Your task to perform on an android device: open a bookmark in the chrome app Image 0: 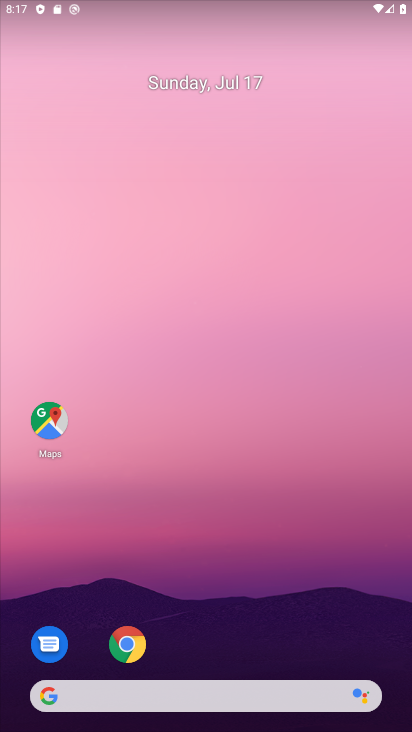
Step 0: click (127, 638)
Your task to perform on an android device: open a bookmark in the chrome app Image 1: 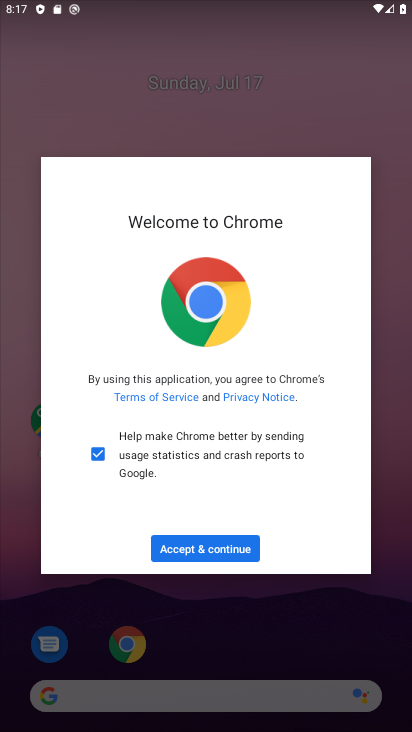
Step 1: click (202, 547)
Your task to perform on an android device: open a bookmark in the chrome app Image 2: 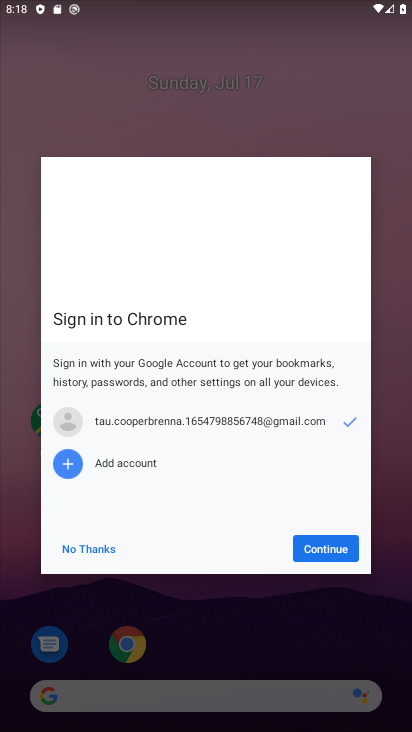
Step 2: click (311, 549)
Your task to perform on an android device: open a bookmark in the chrome app Image 3: 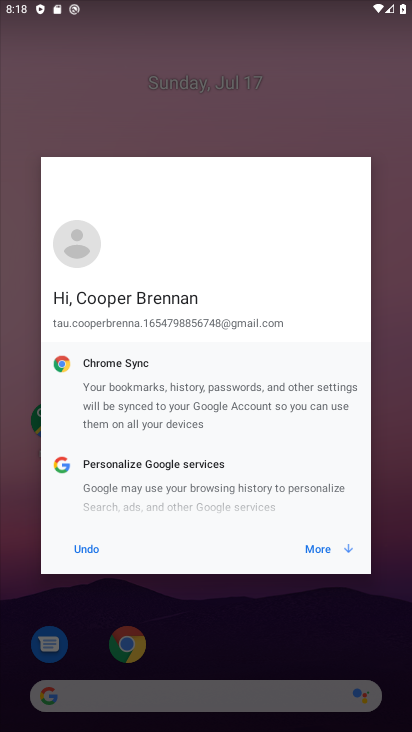
Step 3: click (354, 549)
Your task to perform on an android device: open a bookmark in the chrome app Image 4: 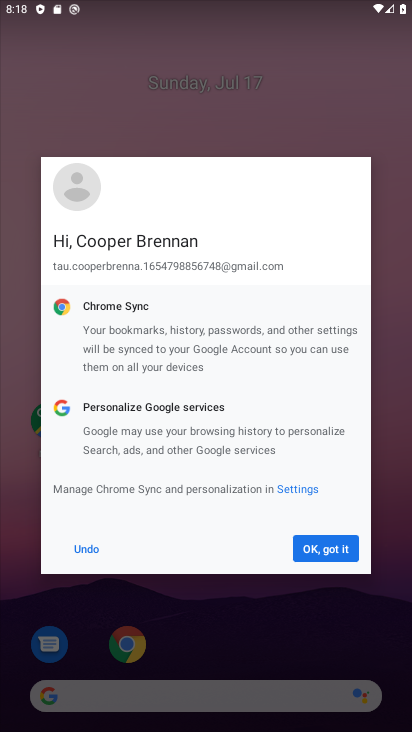
Step 4: click (323, 551)
Your task to perform on an android device: open a bookmark in the chrome app Image 5: 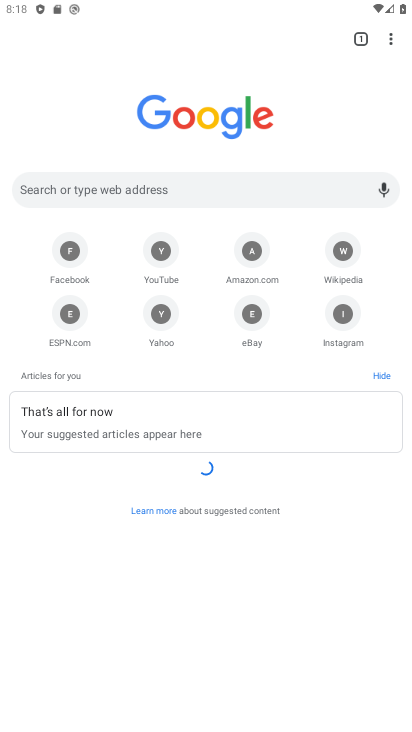
Step 5: click (390, 40)
Your task to perform on an android device: open a bookmark in the chrome app Image 6: 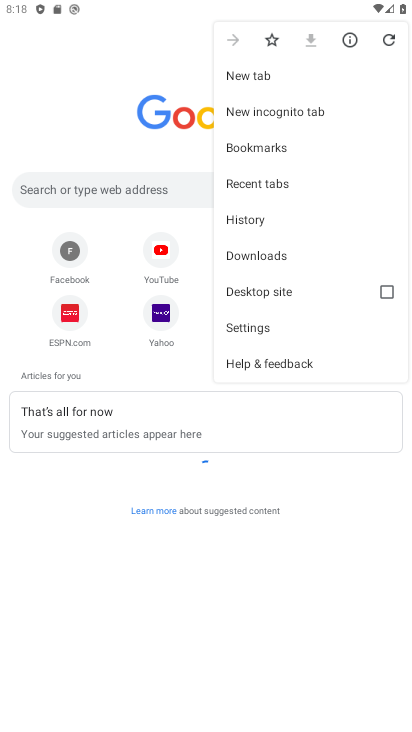
Step 6: click (273, 142)
Your task to perform on an android device: open a bookmark in the chrome app Image 7: 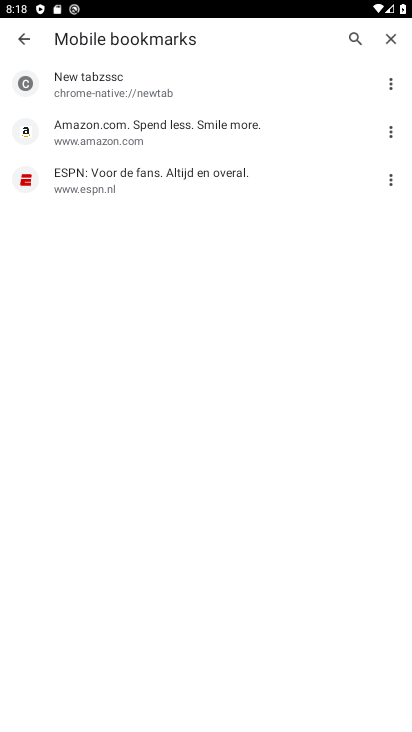
Step 7: task complete